Your task to perform on an android device: Turn off the flashlight Image 0: 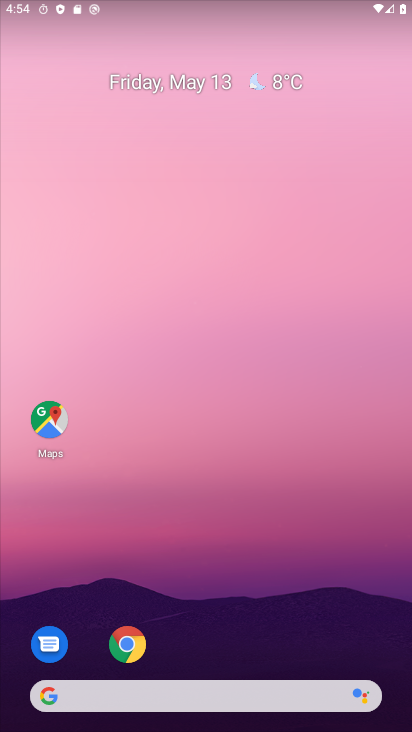
Step 0: drag from (307, 47) to (229, 394)
Your task to perform on an android device: Turn off the flashlight Image 1: 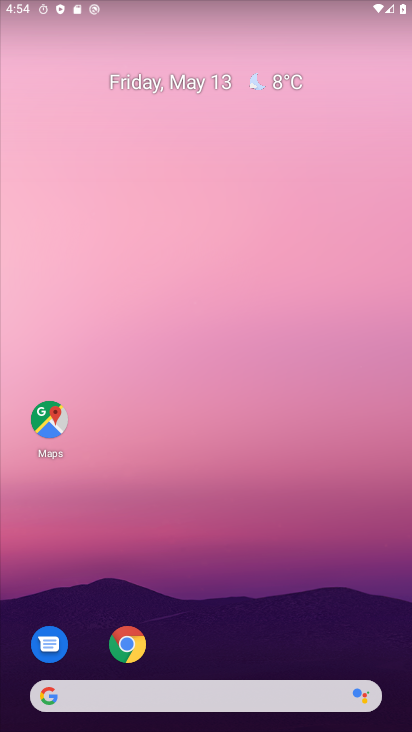
Step 1: task complete